Your task to perform on an android device: Go to settings Image 0: 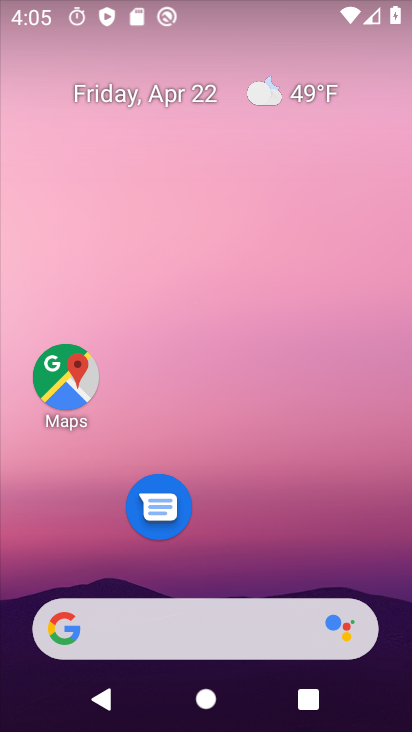
Step 0: drag from (234, 466) to (239, 132)
Your task to perform on an android device: Go to settings Image 1: 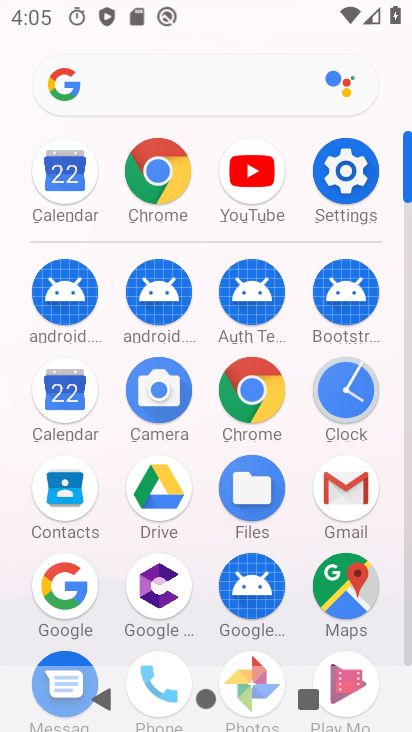
Step 1: click (349, 180)
Your task to perform on an android device: Go to settings Image 2: 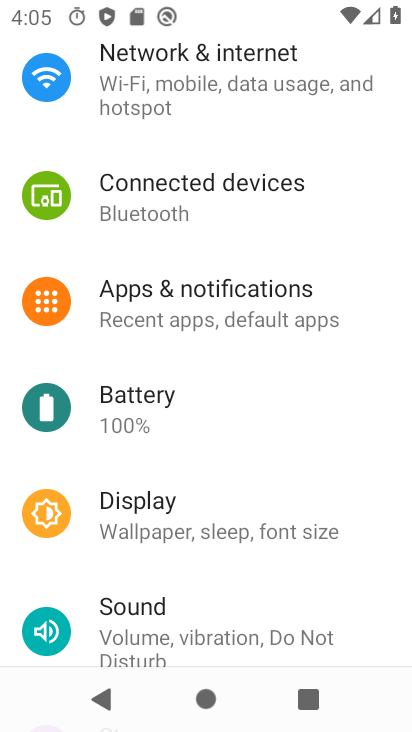
Step 2: task complete